Your task to perform on an android device: toggle wifi Image 0: 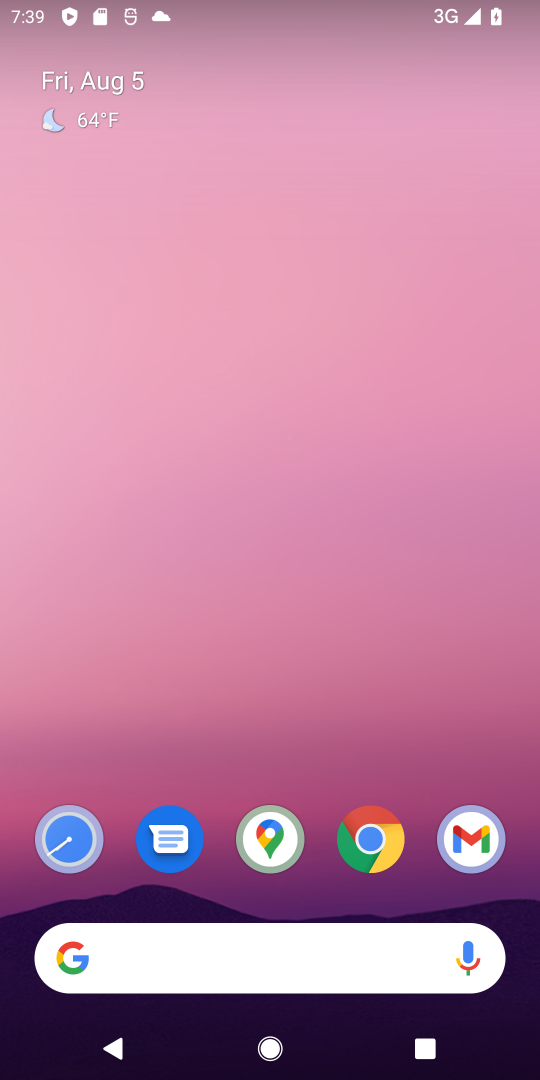
Step 0: drag from (288, 581) to (283, 377)
Your task to perform on an android device: toggle wifi Image 1: 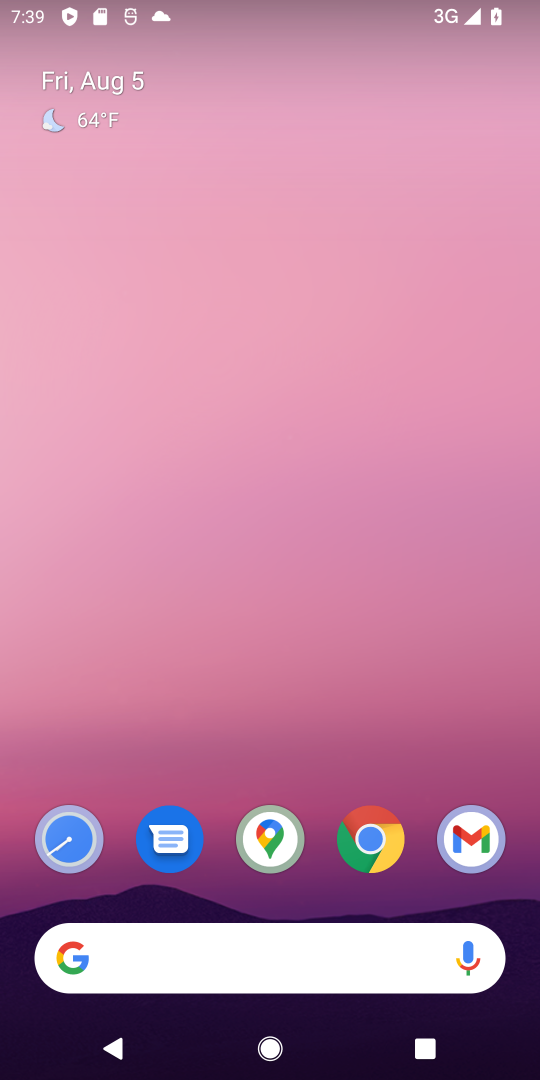
Step 1: drag from (313, 914) to (278, 165)
Your task to perform on an android device: toggle wifi Image 2: 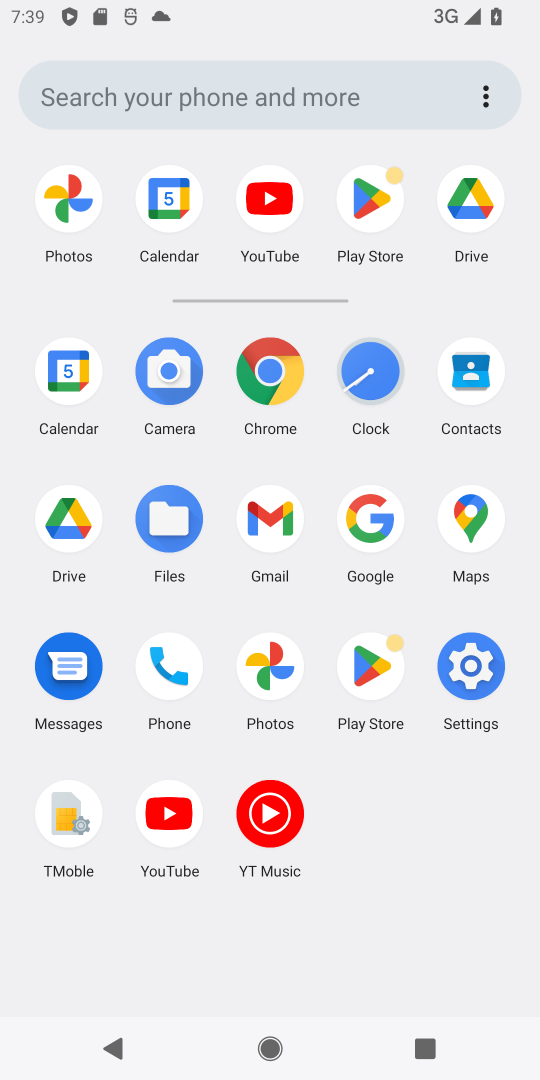
Step 2: click (470, 673)
Your task to perform on an android device: toggle wifi Image 3: 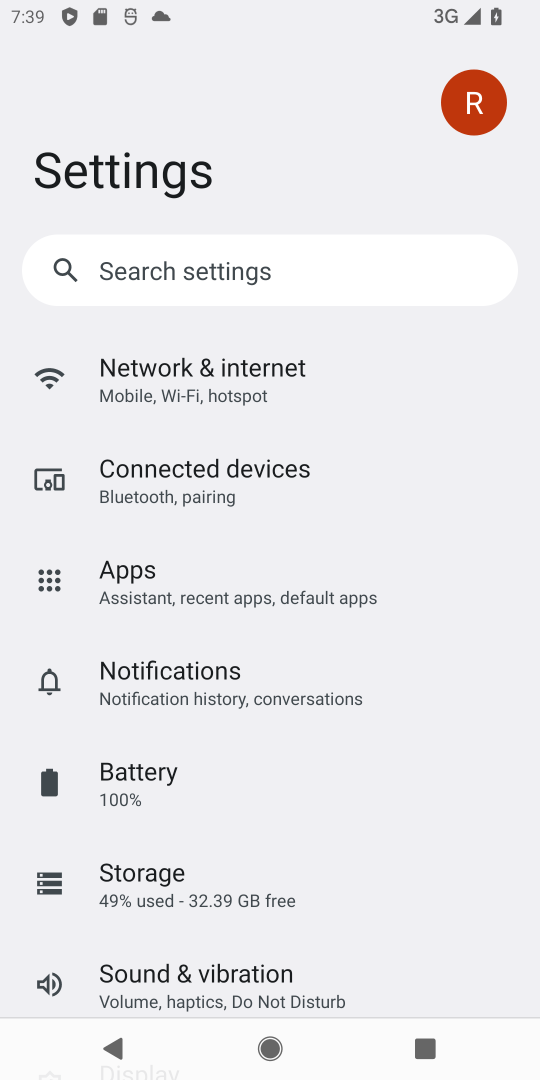
Step 3: click (179, 395)
Your task to perform on an android device: toggle wifi Image 4: 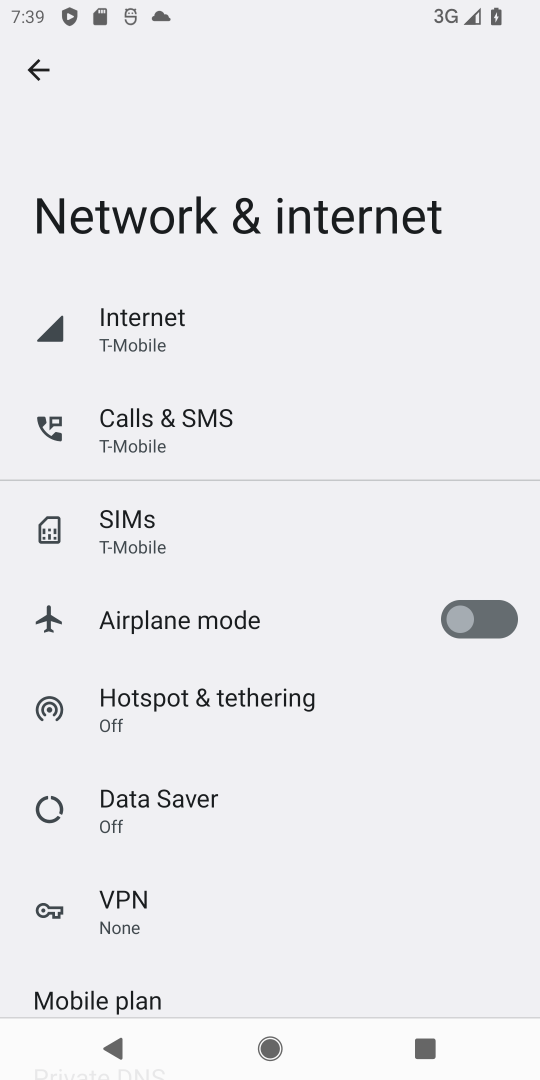
Step 4: click (143, 315)
Your task to perform on an android device: toggle wifi Image 5: 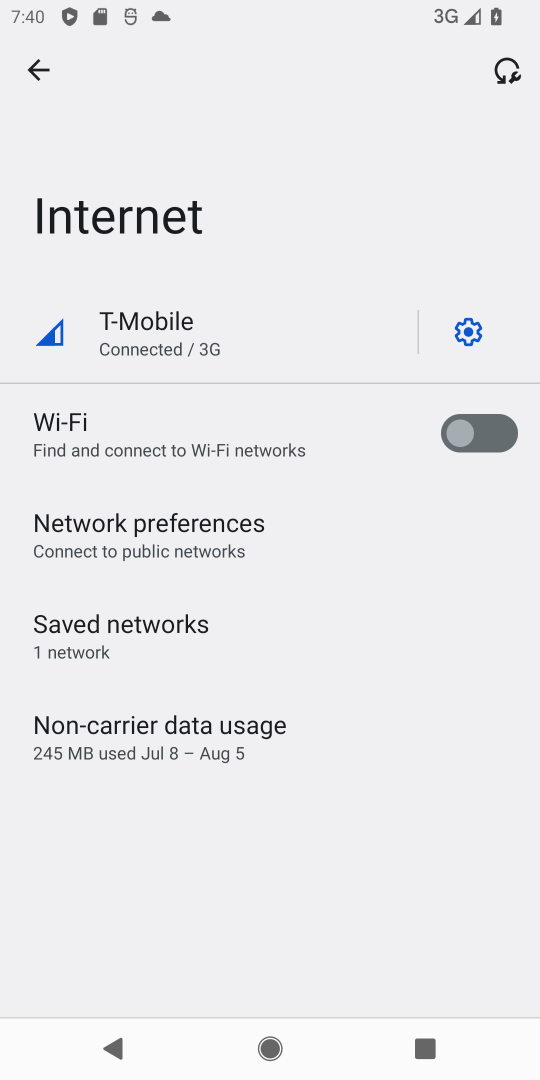
Step 5: click (486, 430)
Your task to perform on an android device: toggle wifi Image 6: 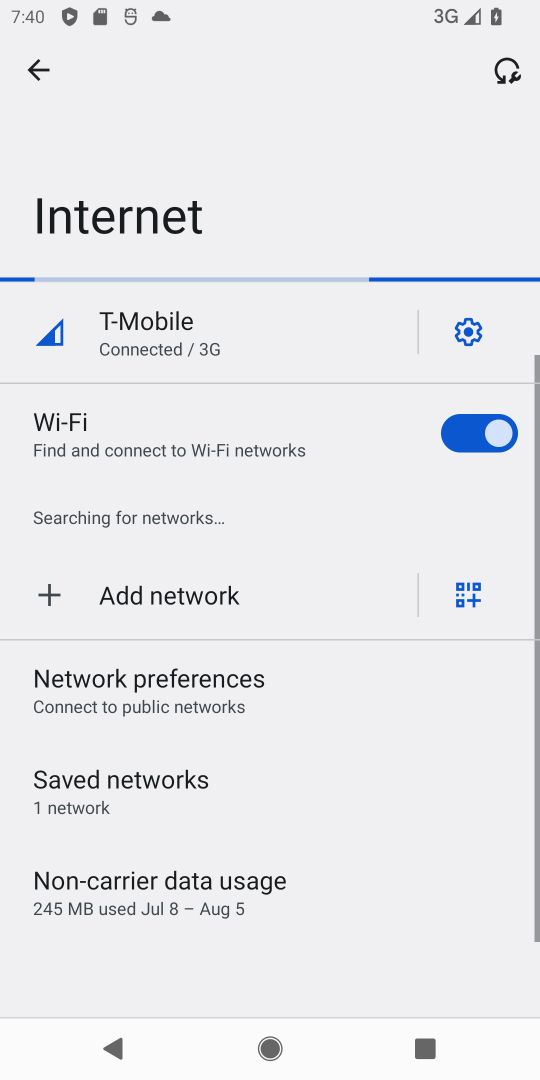
Step 6: task complete